Your task to perform on an android device: Go to internet settings Image 0: 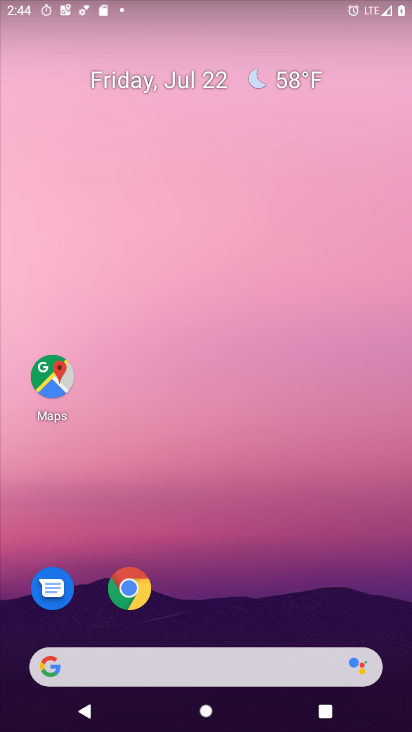
Step 0: drag from (259, 575) to (196, 65)
Your task to perform on an android device: Go to internet settings Image 1: 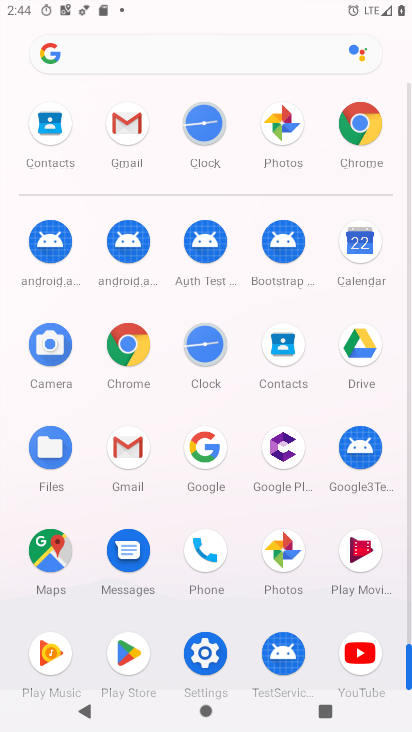
Step 1: click (209, 644)
Your task to perform on an android device: Go to internet settings Image 2: 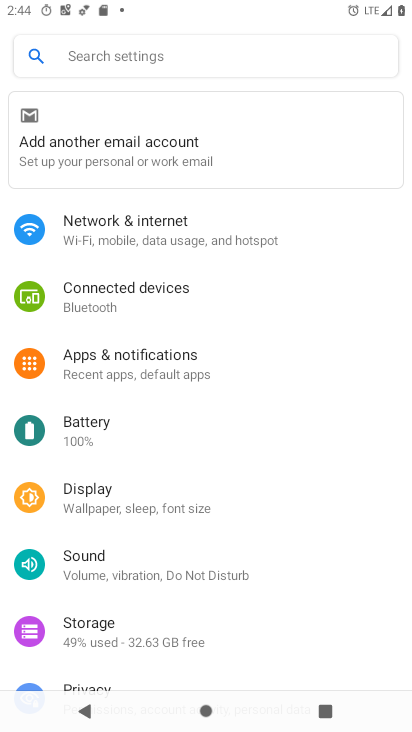
Step 2: click (138, 221)
Your task to perform on an android device: Go to internet settings Image 3: 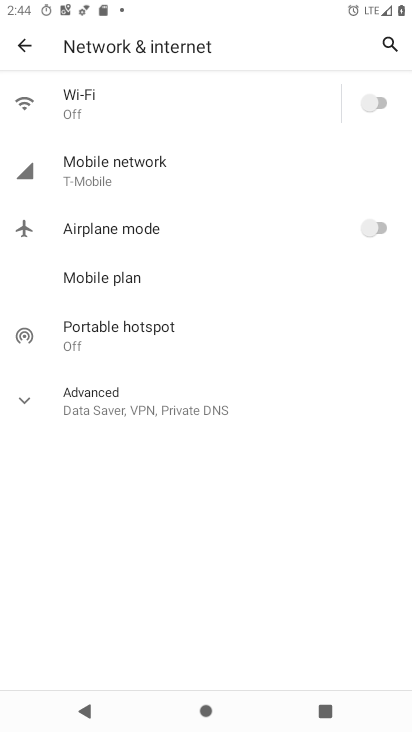
Step 3: task complete